Your task to perform on an android device: Do I have any events today? Image 0: 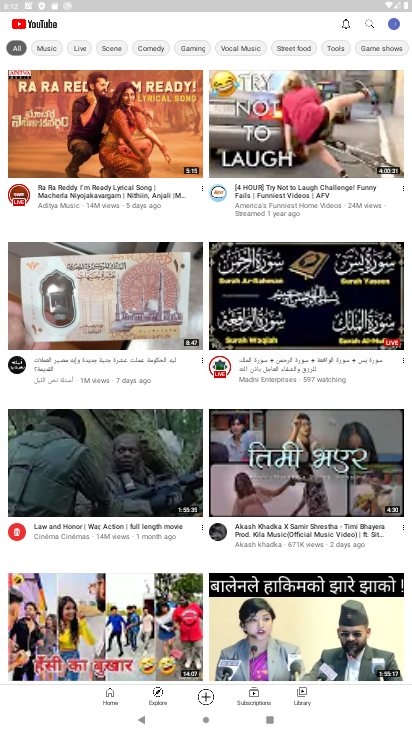
Step 0: press home button
Your task to perform on an android device: Do I have any events today? Image 1: 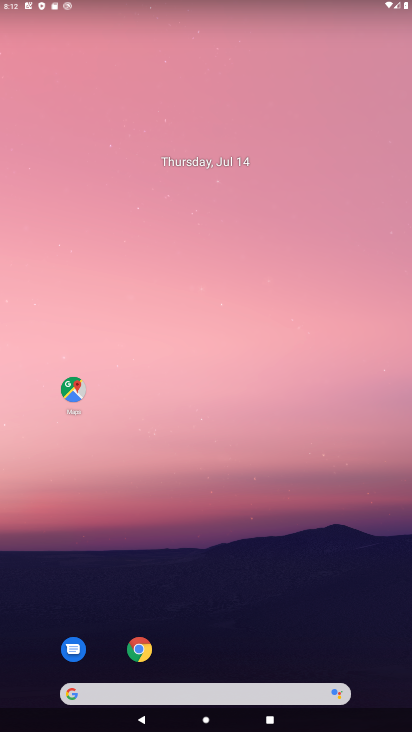
Step 1: drag from (170, 676) to (309, 49)
Your task to perform on an android device: Do I have any events today? Image 2: 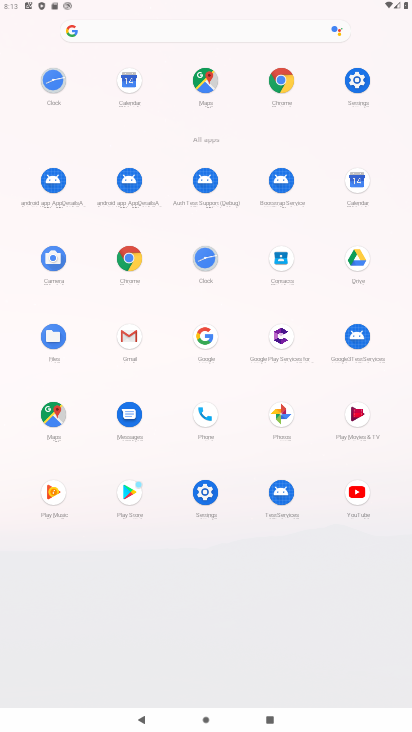
Step 2: click (305, 64)
Your task to perform on an android device: Do I have any events today? Image 3: 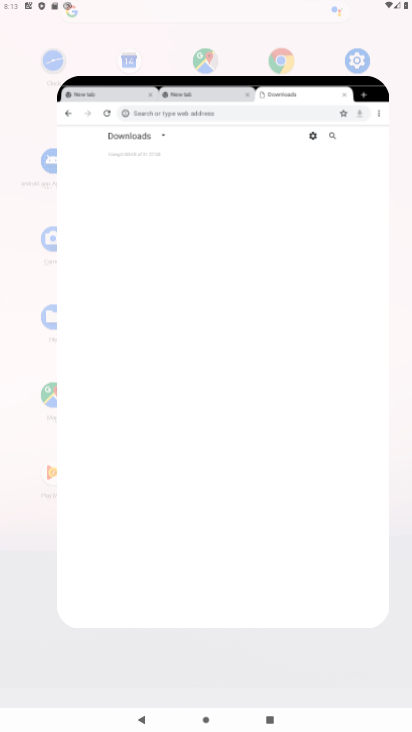
Step 3: click (305, 64)
Your task to perform on an android device: Do I have any events today? Image 4: 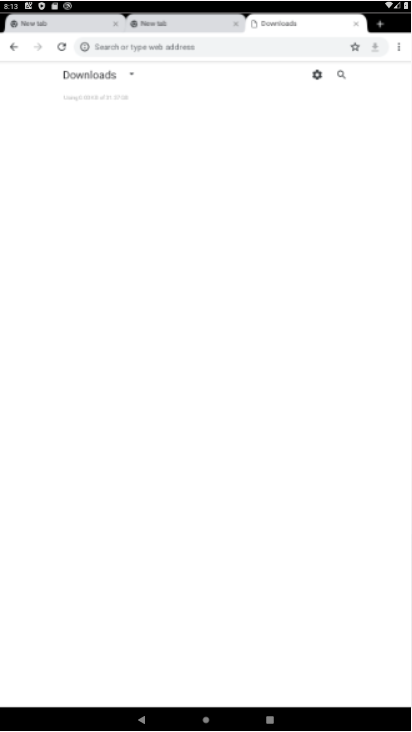
Step 4: click (305, 64)
Your task to perform on an android device: Do I have any events today? Image 5: 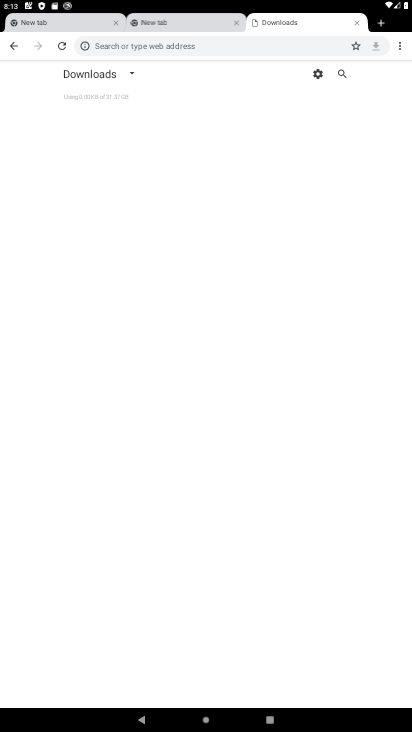
Step 5: click (305, 64)
Your task to perform on an android device: Do I have any events today? Image 6: 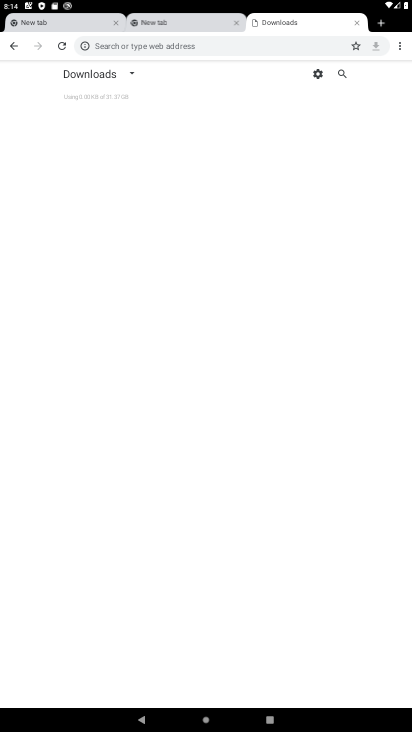
Step 6: press home button
Your task to perform on an android device: Do I have any events today? Image 7: 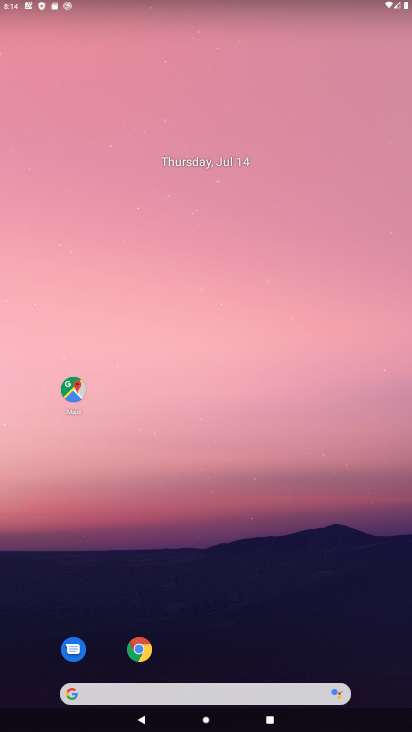
Step 7: drag from (190, 584) to (227, 25)
Your task to perform on an android device: Do I have any events today? Image 8: 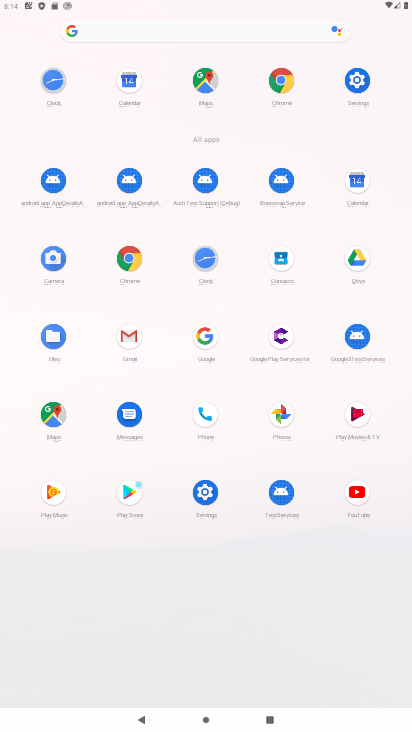
Step 8: click (355, 186)
Your task to perform on an android device: Do I have any events today? Image 9: 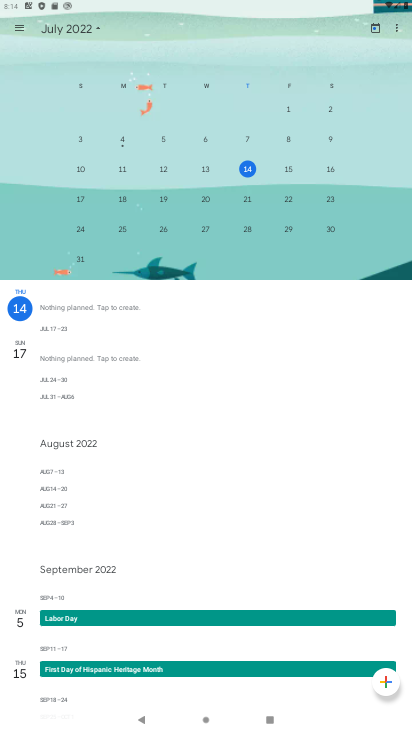
Step 9: click (149, 303)
Your task to perform on an android device: Do I have any events today? Image 10: 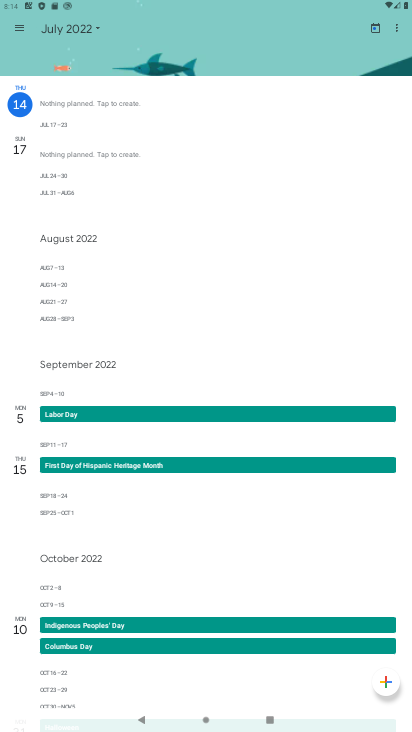
Step 10: task complete